Your task to perform on an android device: allow notifications from all sites in the chrome app Image 0: 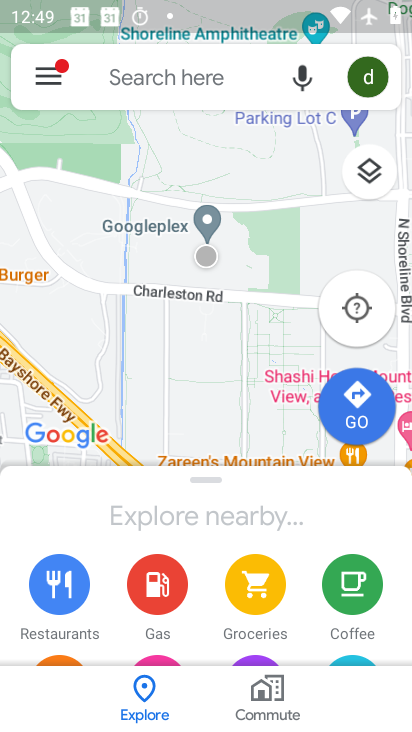
Step 0: press home button
Your task to perform on an android device: allow notifications from all sites in the chrome app Image 1: 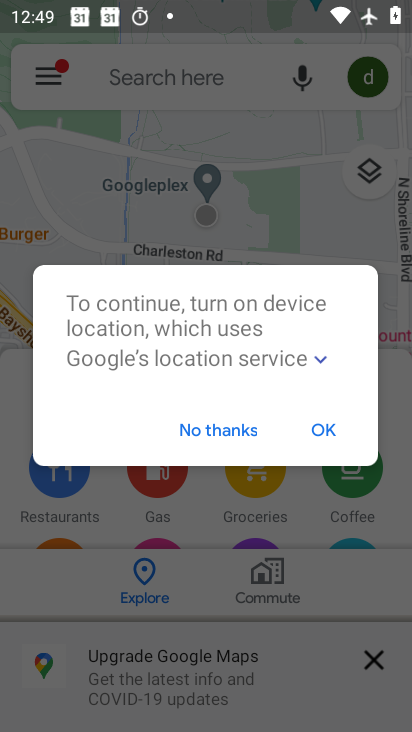
Step 1: press home button
Your task to perform on an android device: allow notifications from all sites in the chrome app Image 2: 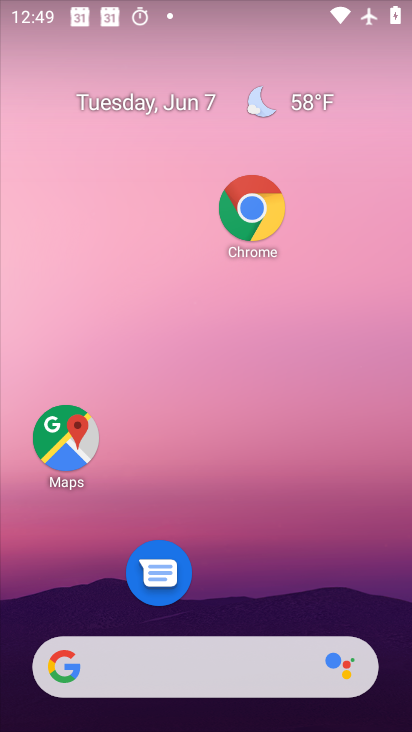
Step 2: press home button
Your task to perform on an android device: allow notifications from all sites in the chrome app Image 3: 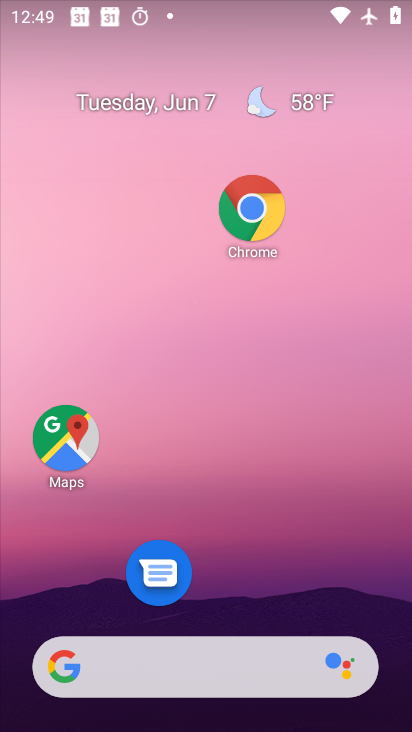
Step 3: press home button
Your task to perform on an android device: allow notifications from all sites in the chrome app Image 4: 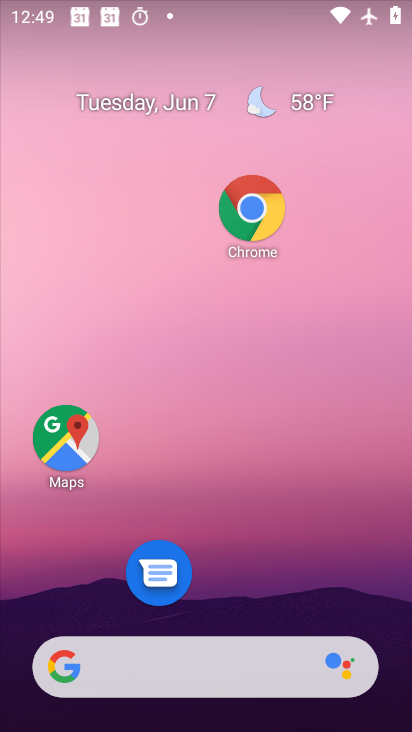
Step 4: click (263, 221)
Your task to perform on an android device: allow notifications from all sites in the chrome app Image 5: 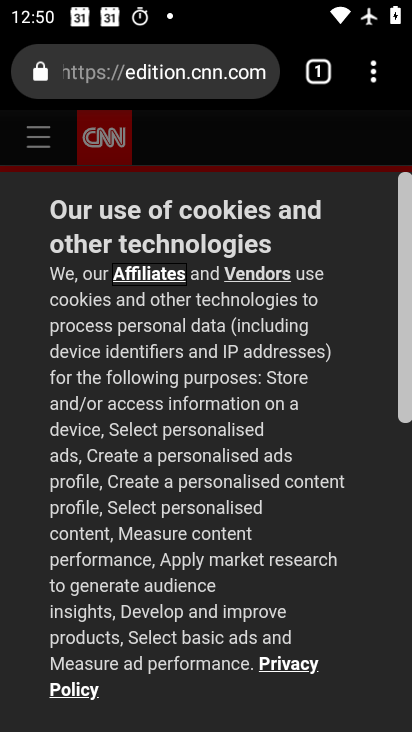
Step 5: click (366, 83)
Your task to perform on an android device: allow notifications from all sites in the chrome app Image 6: 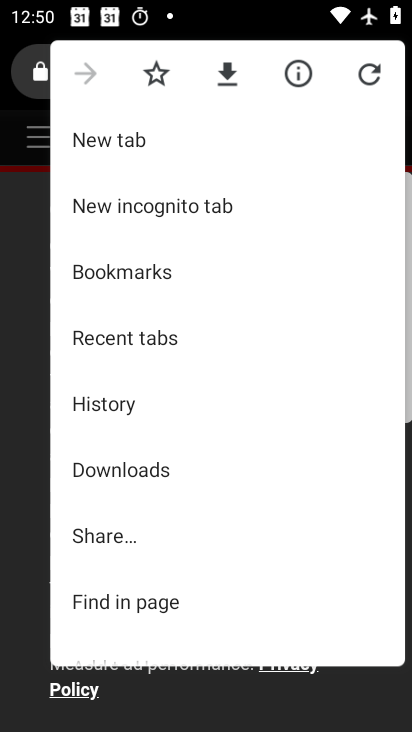
Step 6: drag from (168, 531) to (190, 221)
Your task to perform on an android device: allow notifications from all sites in the chrome app Image 7: 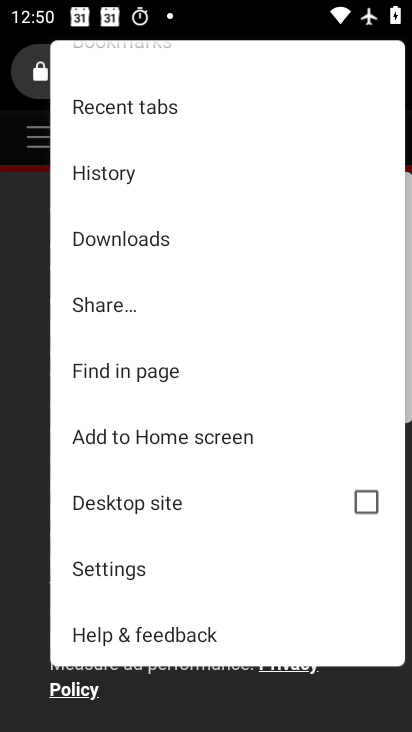
Step 7: click (149, 564)
Your task to perform on an android device: allow notifications from all sites in the chrome app Image 8: 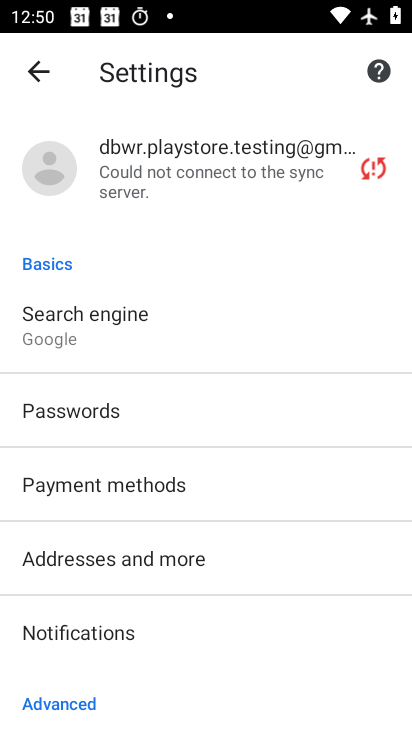
Step 8: click (159, 633)
Your task to perform on an android device: allow notifications from all sites in the chrome app Image 9: 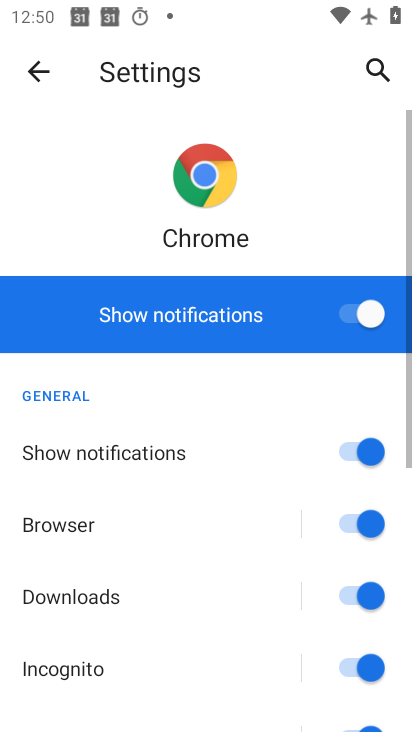
Step 9: drag from (159, 633) to (221, 308)
Your task to perform on an android device: allow notifications from all sites in the chrome app Image 10: 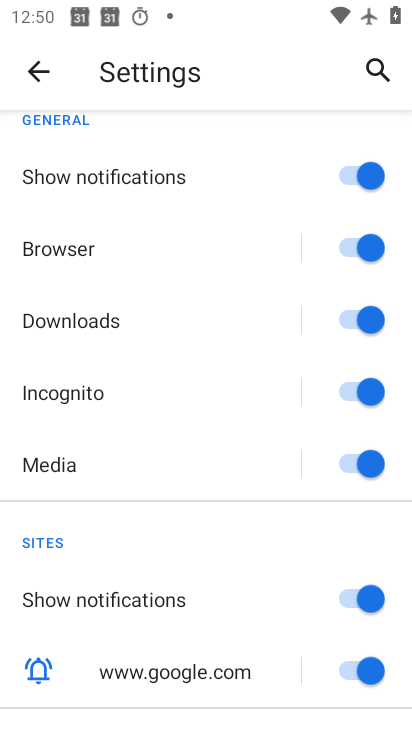
Step 10: drag from (307, 117) to (315, 472)
Your task to perform on an android device: allow notifications from all sites in the chrome app Image 11: 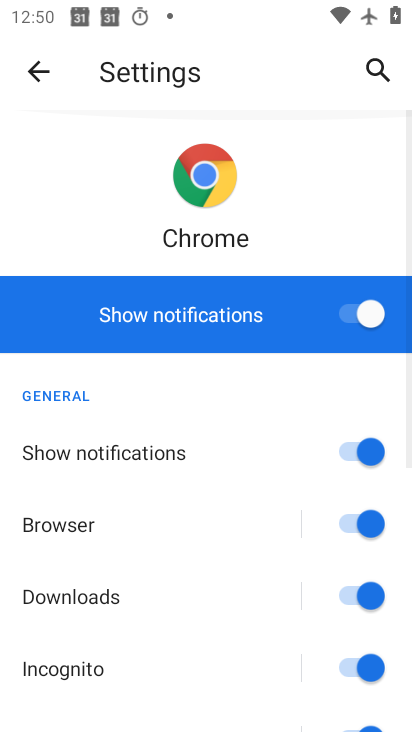
Step 11: drag from (239, 598) to (213, 116)
Your task to perform on an android device: allow notifications from all sites in the chrome app Image 12: 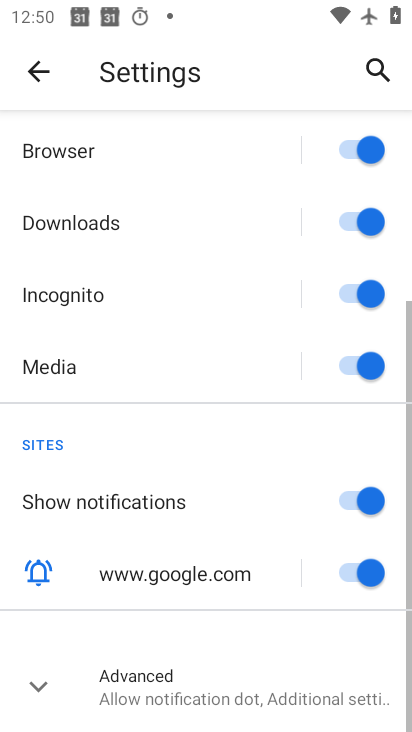
Step 12: drag from (169, 590) to (207, 195)
Your task to perform on an android device: allow notifications from all sites in the chrome app Image 13: 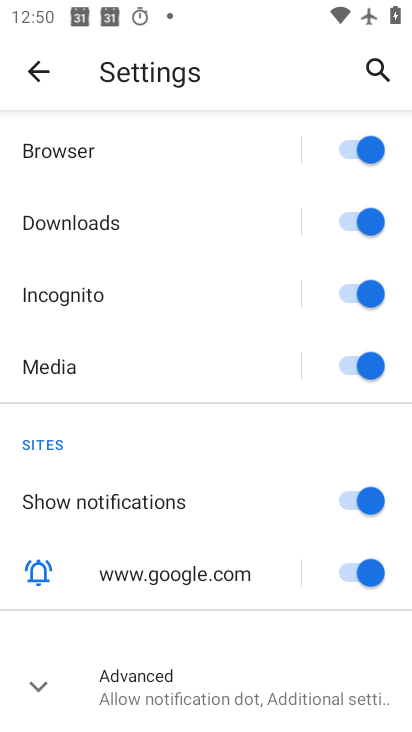
Step 13: click (36, 81)
Your task to perform on an android device: allow notifications from all sites in the chrome app Image 14: 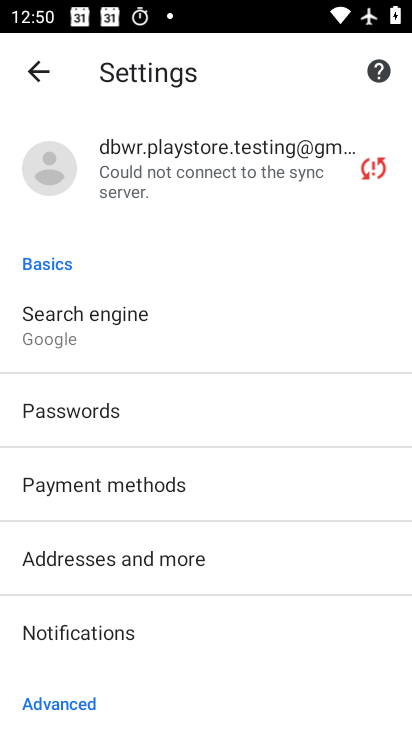
Step 14: drag from (114, 619) to (166, 237)
Your task to perform on an android device: allow notifications from all sites in the chrome app Image 15: 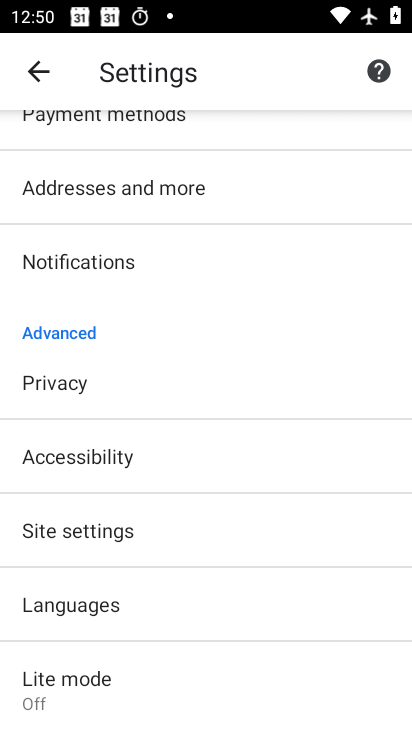
Step 15: click (153, 542)
Your task to perform on an android device: allow notifications from all sites in the chrome app Image 16: 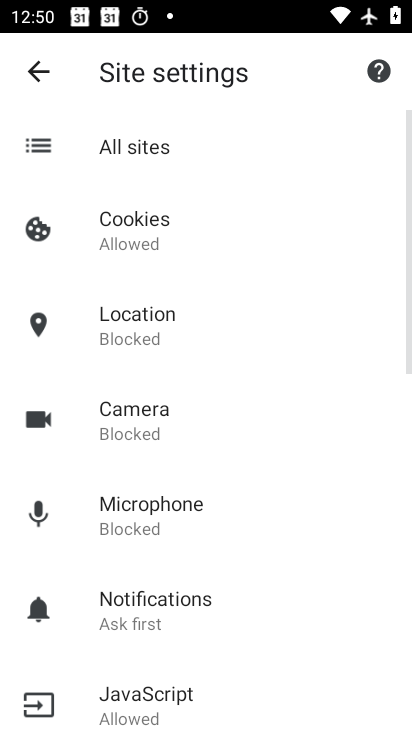
Step 16: click (145, 150)
Your task to perform on an android device: allow notifications from all sites in the chrome app Image 17: 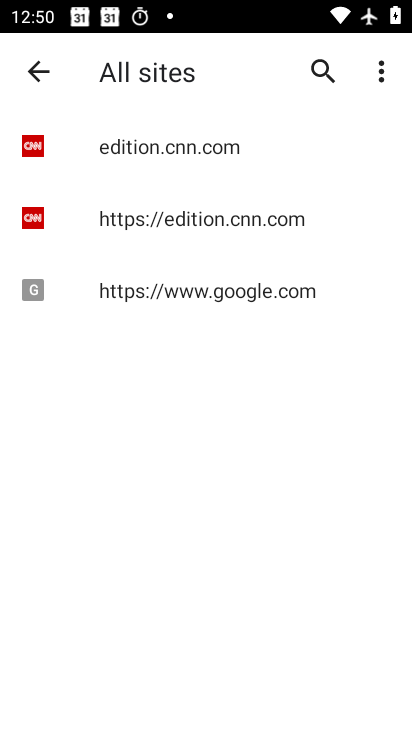
Step 17: click (156, 280)
Your task to perform on an android device: allow notifications from all sites in the chrome app Image 18: 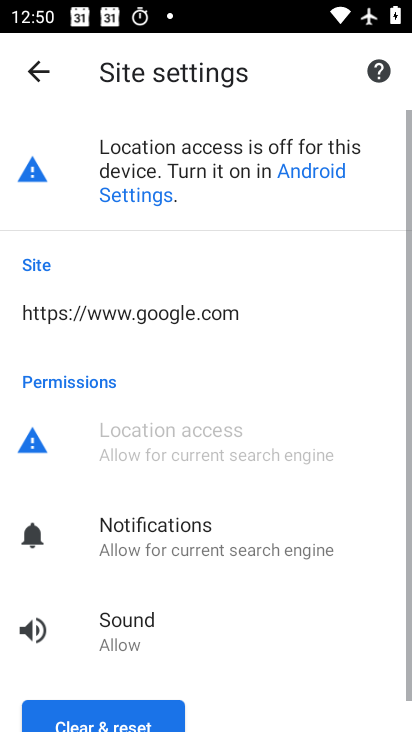
Step 18: drag from (213, 644) to (227, 380)
Your task to perform on an android device: allow notifications from all sites in the chrome app Image 19: 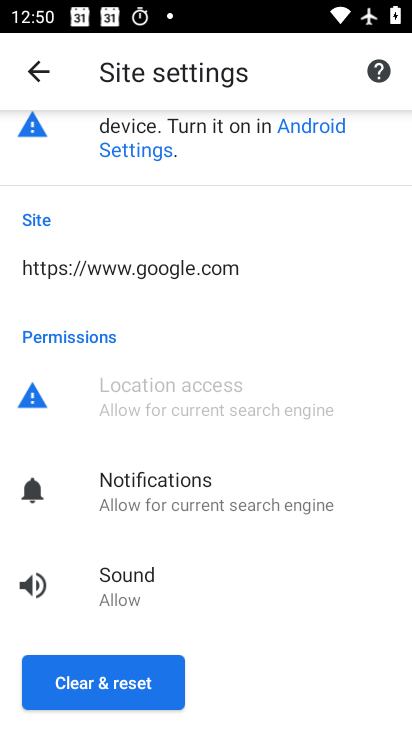
Step 19: click (177, 506)
Your task to perform on an android device: allow notifications from all sites in the chrome app Image 20: 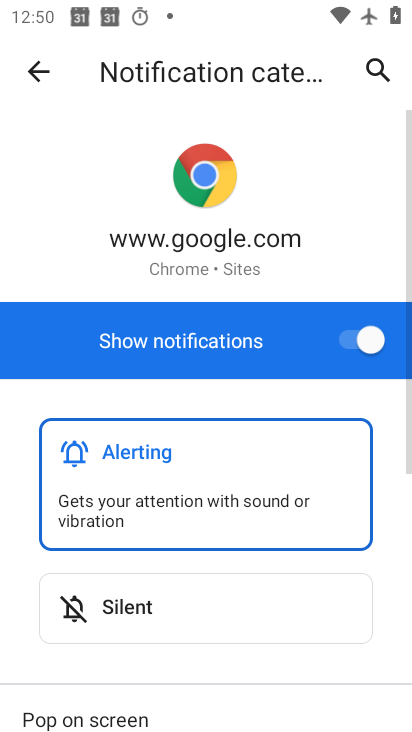
Step 20: task complete